Your task to perform on an android device: delete the emails in spam in the gmail app Image 0: 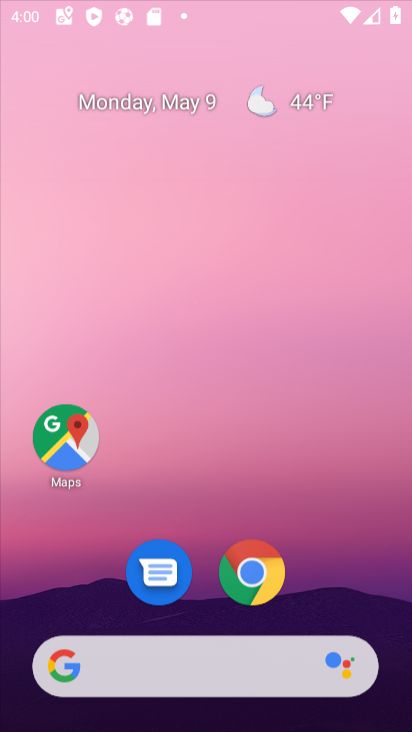
Step 0: click (311, 1)
Your task to perform on an android device: delete the emails in spam in the gmail app Image 1: 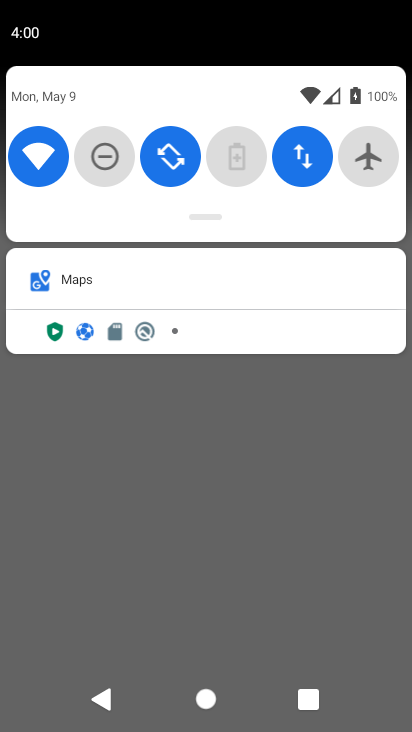
Step 1: drag from (333, 618) to (316, 146)
Your task to perform on an android device: delete the emails in spam in the gmail app Image 2: 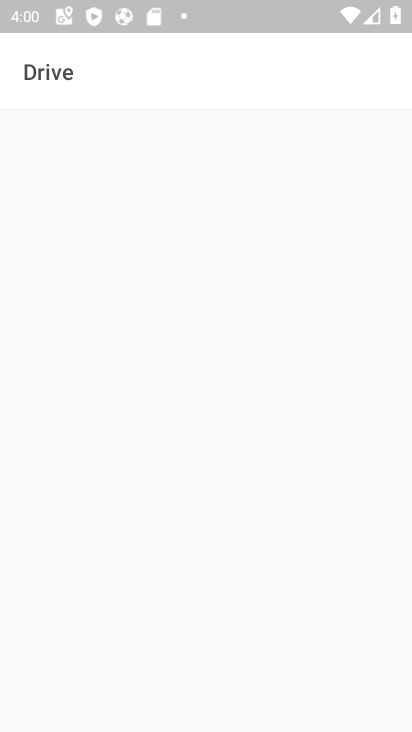
Step 2: press home button
Your task to perform on an android device: delete the emails in spam in the gmail app Image 3: 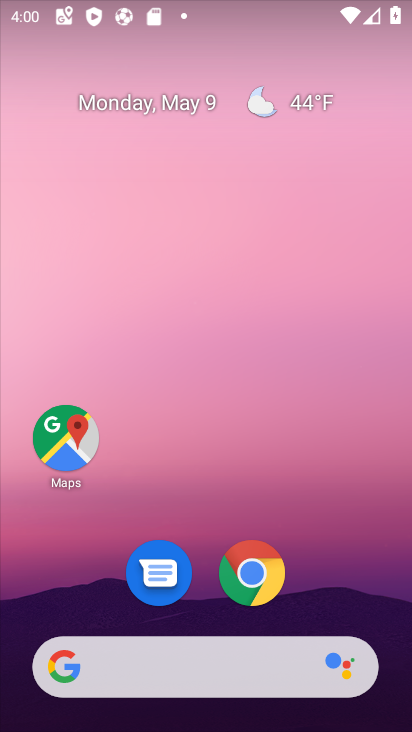
Step 3: drag from (339, 616) to (279, 145)
Your task to perform on an android device: delete the emails in spam in the gmail app Image 4: 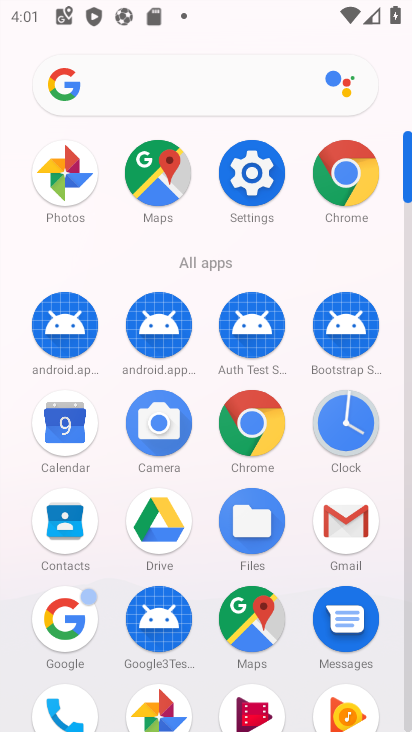
Step 4: drag from (297, 601) to (270, 422)
Your task to perform on an android device: delete the emails in spam in the gmail app Image 5: 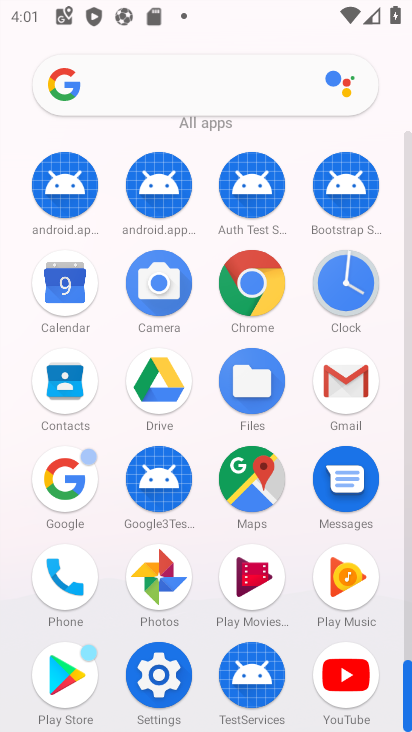
Step 5: click (336, 385)
Your task to perform on an android device: delete the emails in spam in the gmail app Image 6: 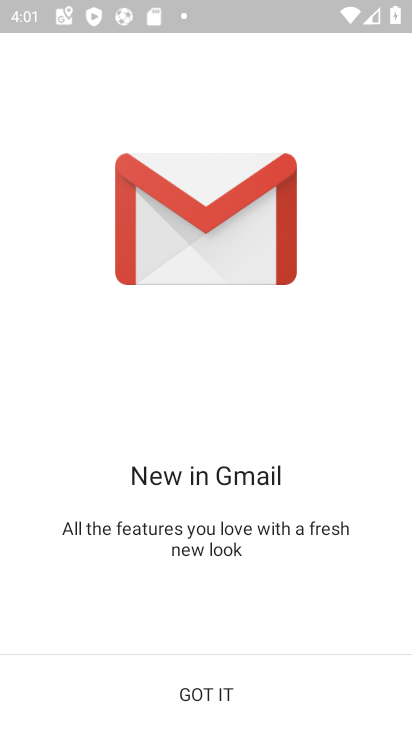
Step 6: click (260, 702)
Your task to perform on an android device: delete the emails in spam in the gmail app Image 7: 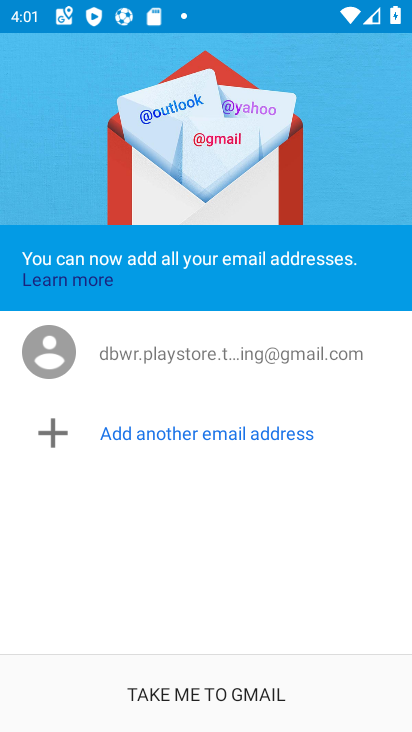
Step 7: click (174, 684)
Your task to perform on an android device: delete the emails in spam in the gmail app Image 8: 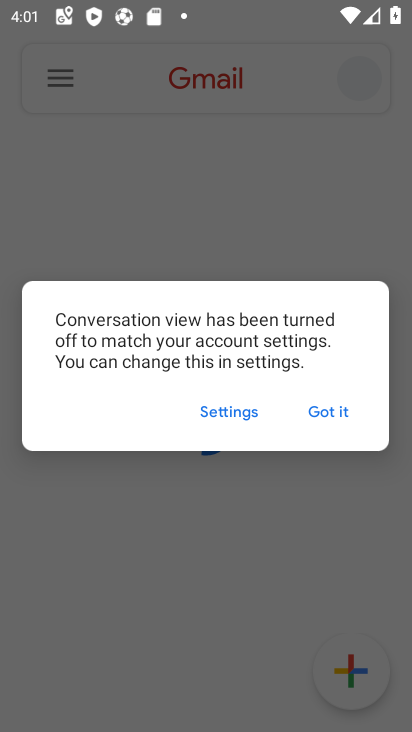
Step 8: click (336, 422)
Your task to perform on an android device: delete the emails in spam in the gmail app Image 9: 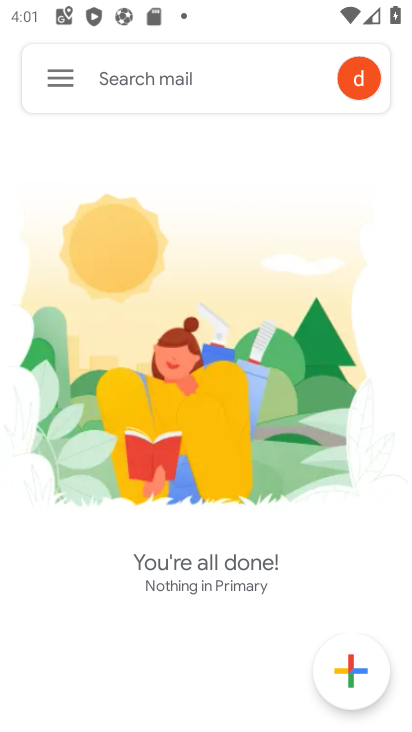
Step 9: click (64, 77)
Your task to perform on an android device: delete the emails in spam in the gmail app Image 10: 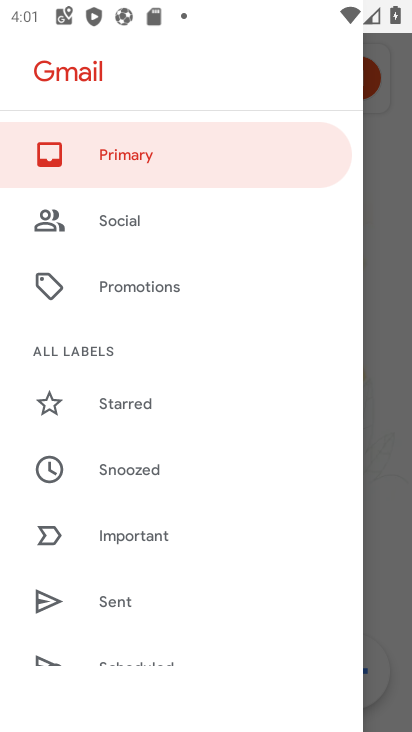
Step 10: drag from (176, 571) to (128, 167)
Your task to perform on an android device: delete the emails in spam in the gmail app Image 11: 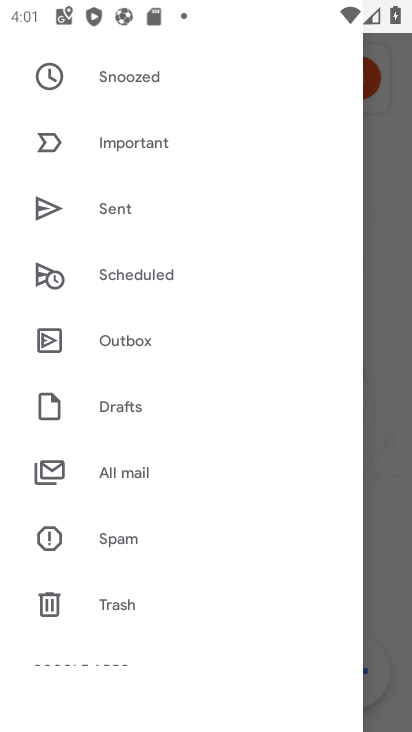
Step 11: click (140, 543)
Your task to perform on an android device: delete the emails in spam in the gmail app Image 12: 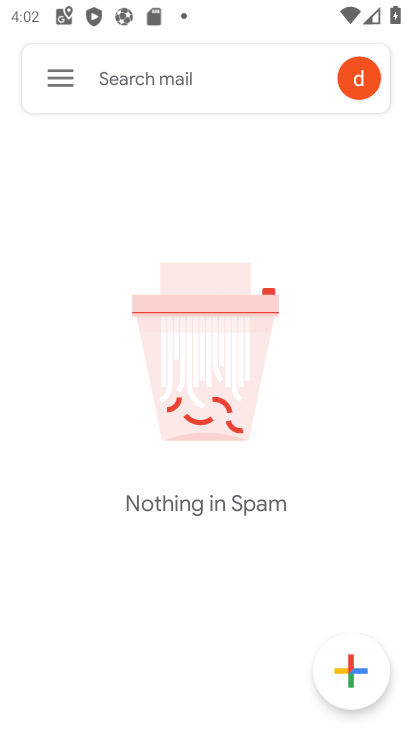
Step 12: task complete